Your task to perform on an android device: see tabs open on other devices in the chrome app Image 0: 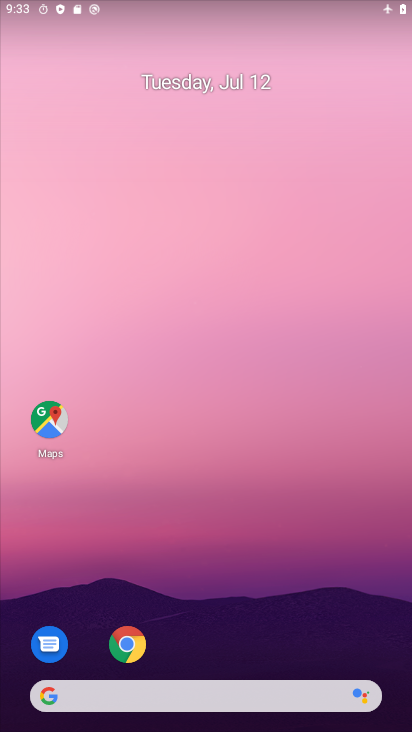
Step 0: click (117, 632)
Your task to perform on an android device: see tabs open on other devices in the chrome app Image 1: 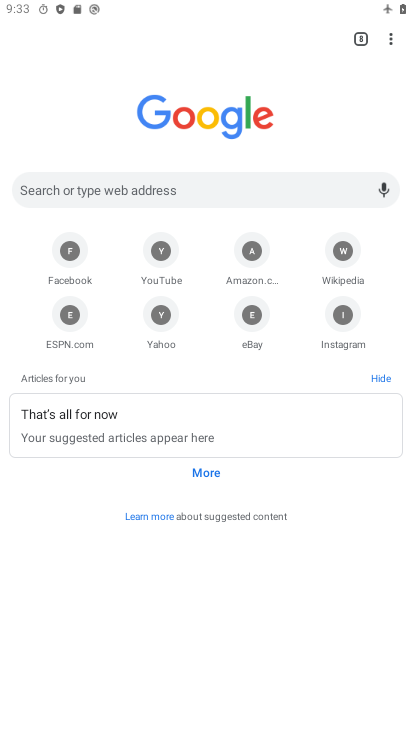
Step 1: click (390, 38)
Your task to perform on an android device: see tabs open on other devices in the chrome app Image 2: 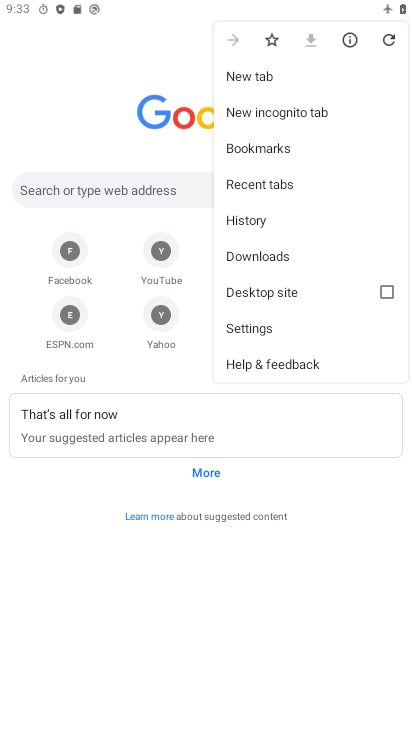
Step 2: click (305, 194)
Your task to perform on an android device: see tabs open on other devices in the chrome app Image 3: 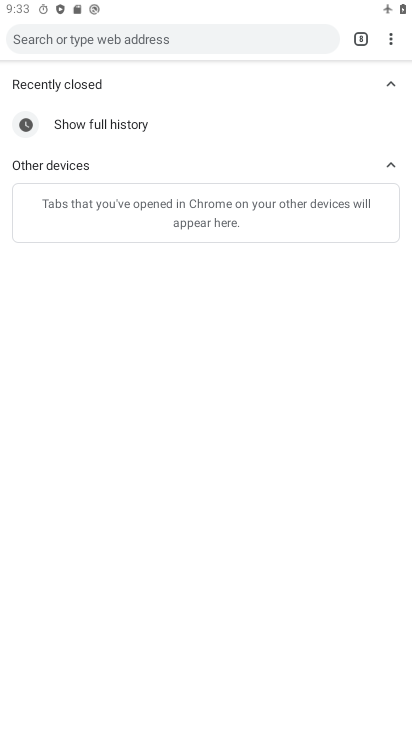
Step 3: task complete